Your task to perform on an android device: Open Google Chrome and click the shortcut for Amazon.com Image 0: 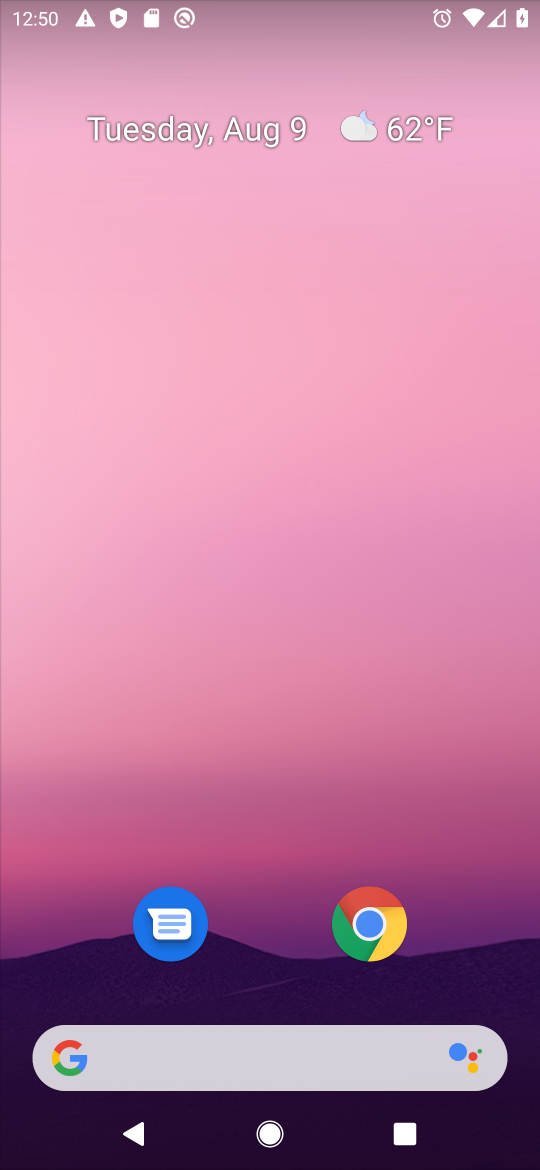
Step 0: click (411, 919)
Your task to perform on an android device: Open Google Chrome and click the shortcut for Amazon.com Image 1: 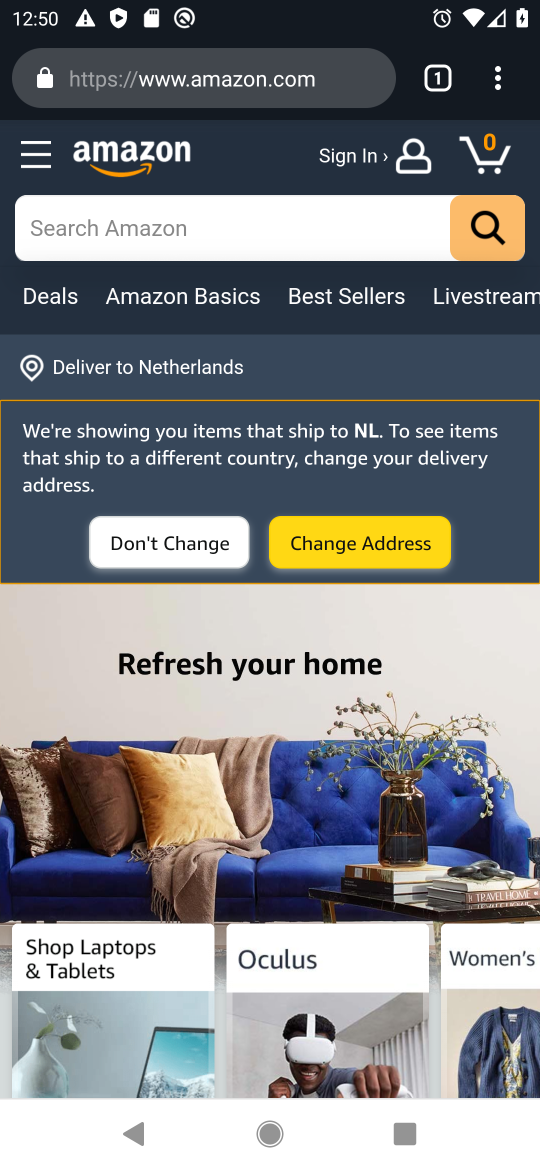
Step 1: task complete